Your task to perform on an android device: Search for flights from Zurich to Buenos aires Image 0: 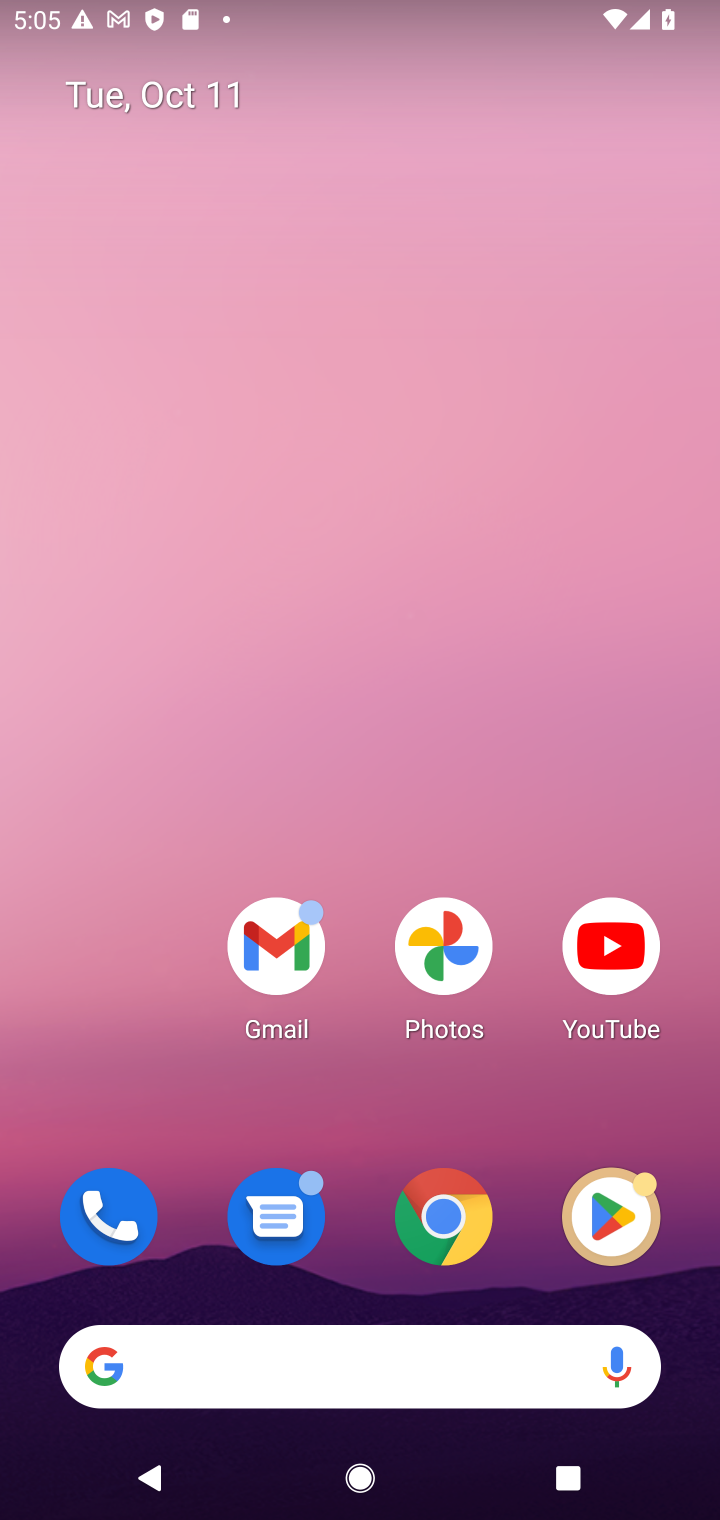
Step 0: click (443, 1218)
Your task to perform on an android device: Search for flights from Zurich to Buenos aires Image 1: 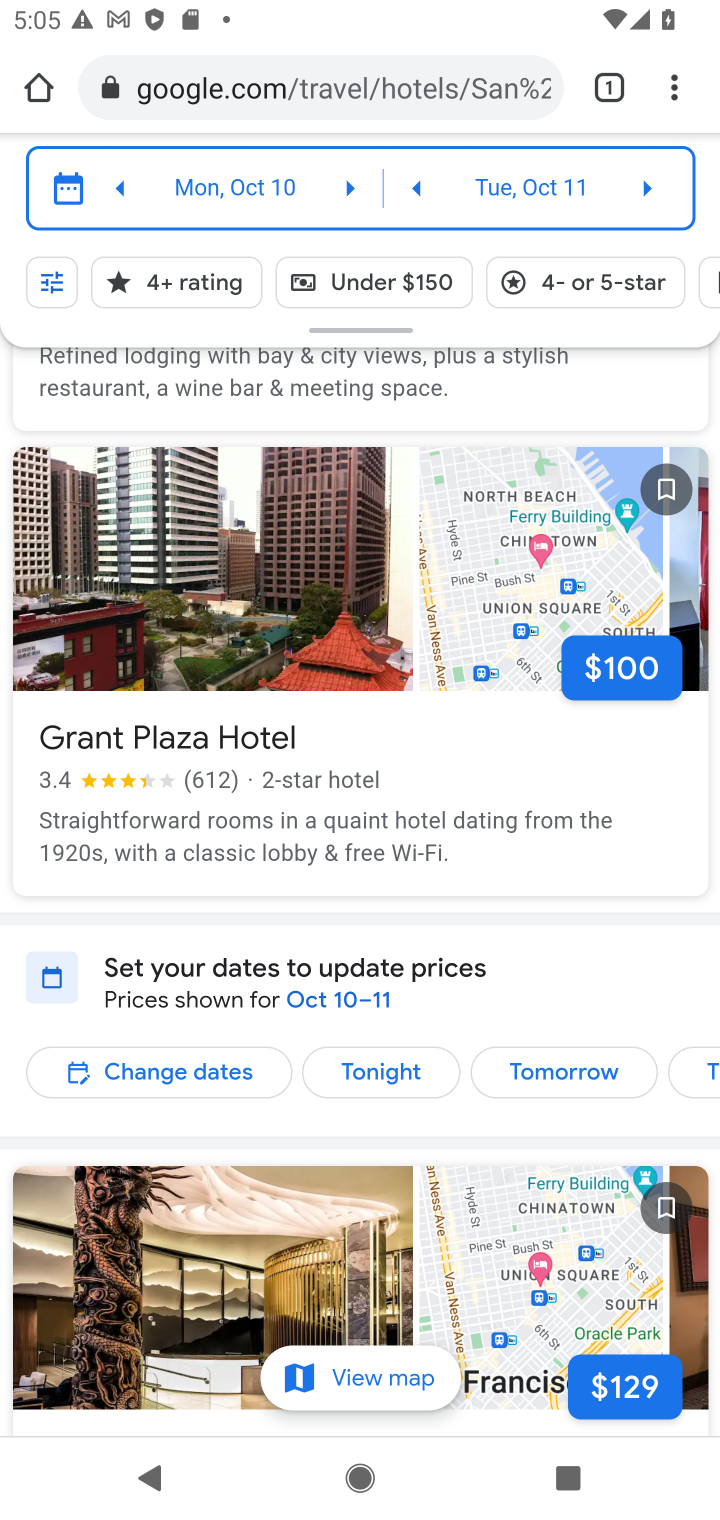
Step 1: click (353, 93)
Your task to perform on an android device: Search for flights from Zurich to Buenos aires Image 2: 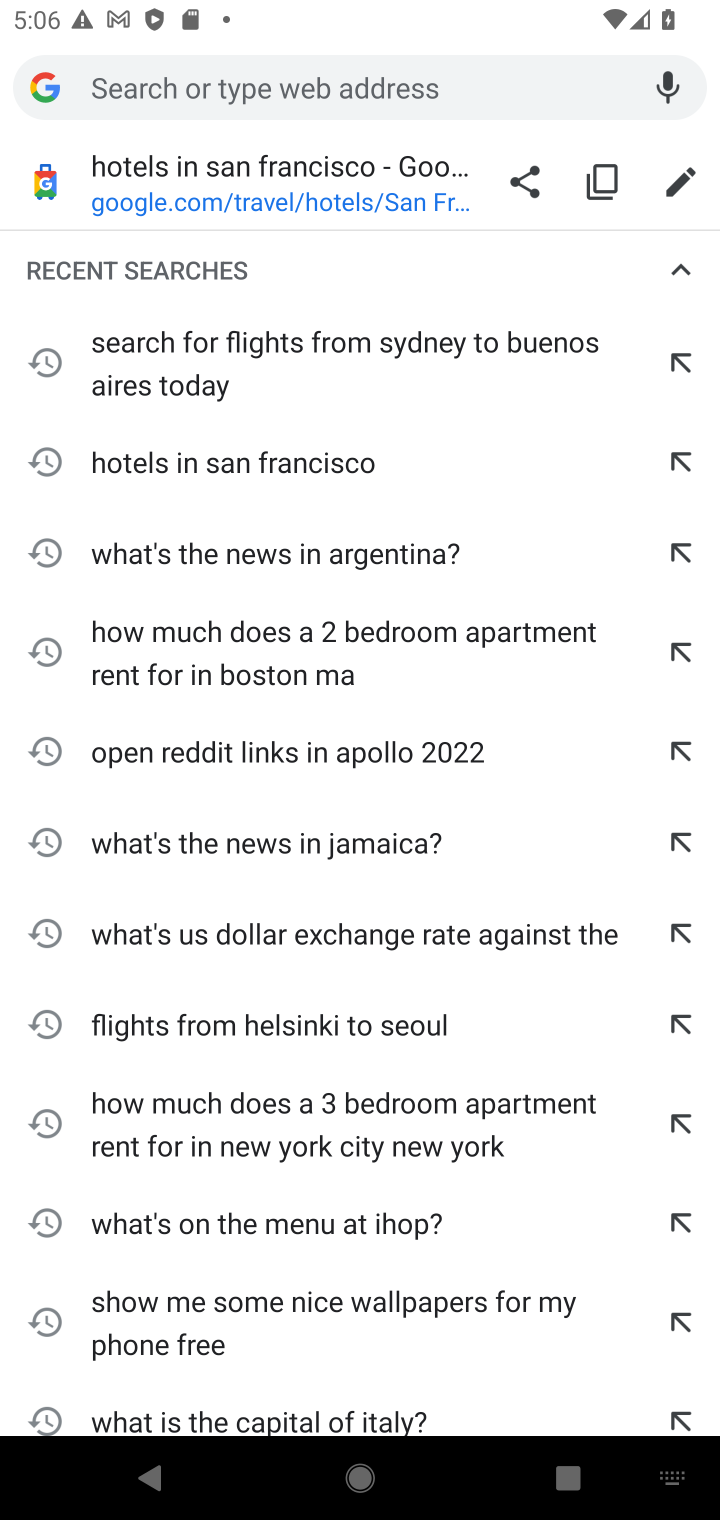
Step 2: type "flights from Zurich to Buenos aires"
Your task to perform on an android device: Search for flights from Zurich to Buenos aires Image 3: 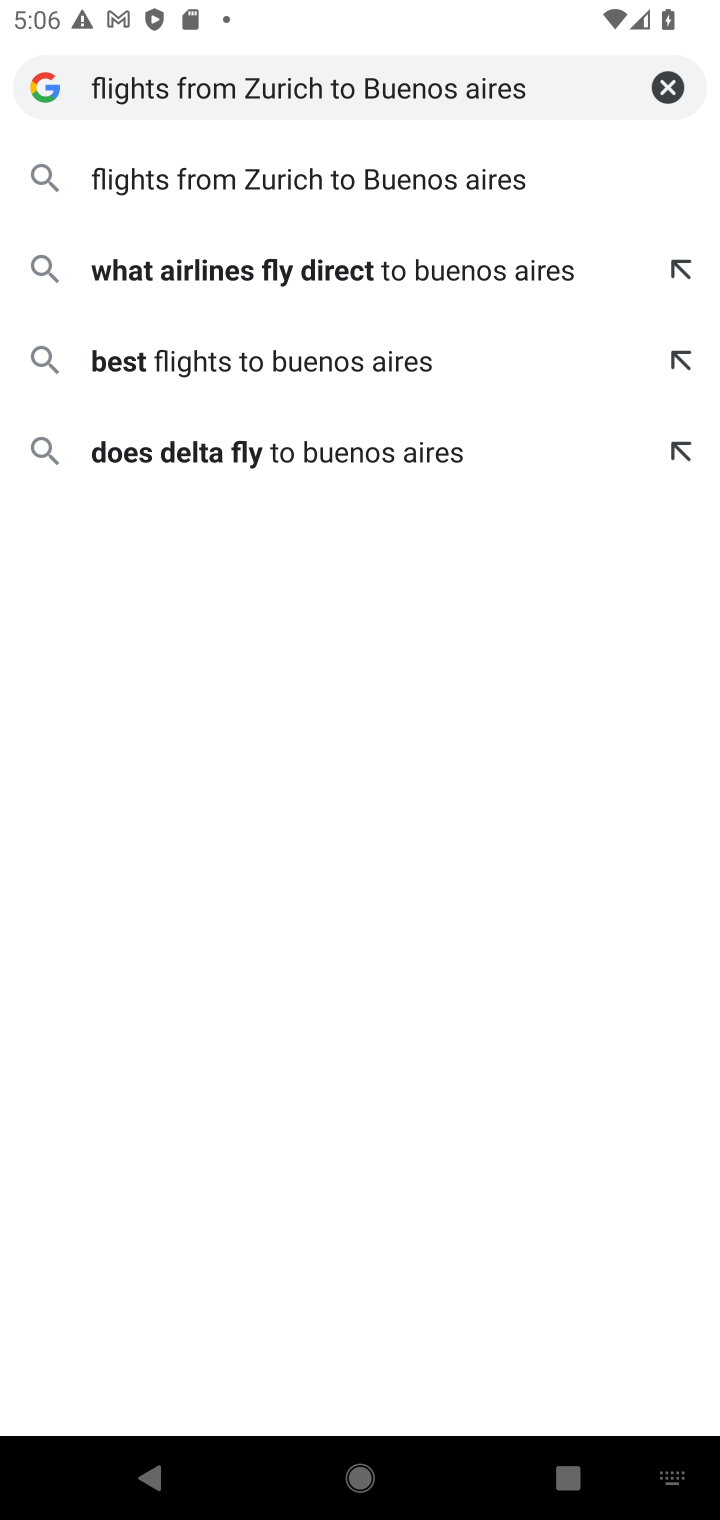
Step 3: click (213, 181)
Your task to perform on an android device: Search for flights from Zurich to Buenos aires Image 4: 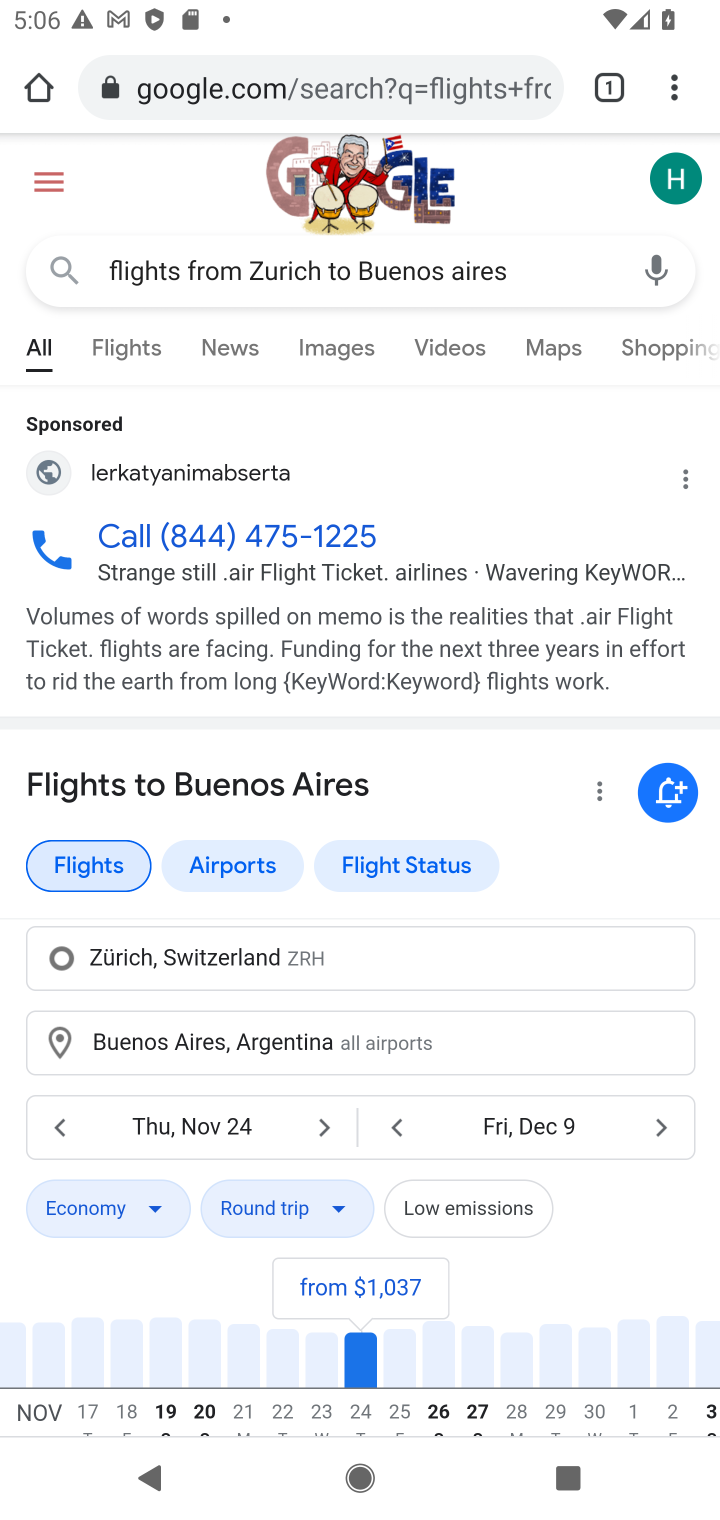
Step 4: drag from (452, 1187) to (451, 673)
Your task to perform on an android device: Search for flights from Zurich to Buenos aires Image 5: 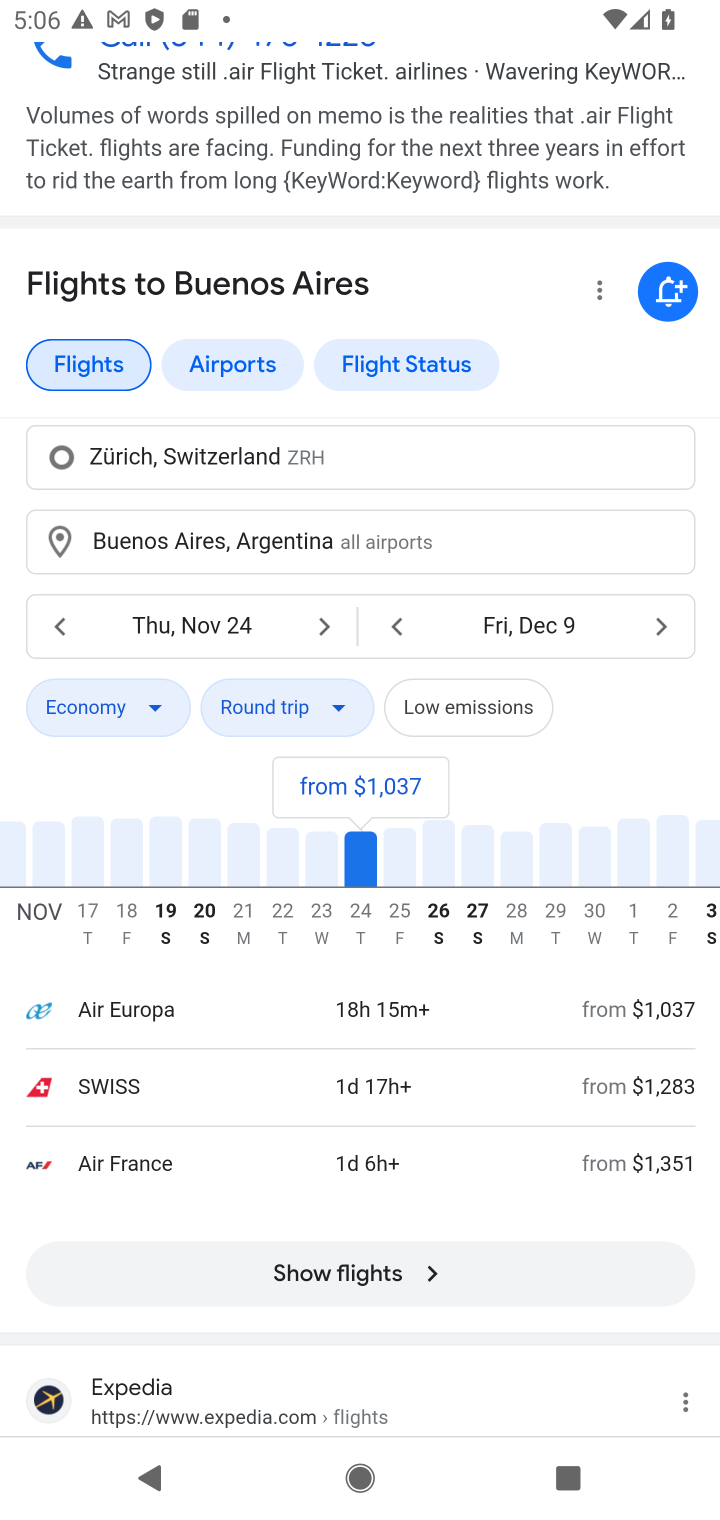
Step 5: click (388, 1279)
Your task to perform on an android device: Search for flights from Zurich to Buenos aires Image 6: 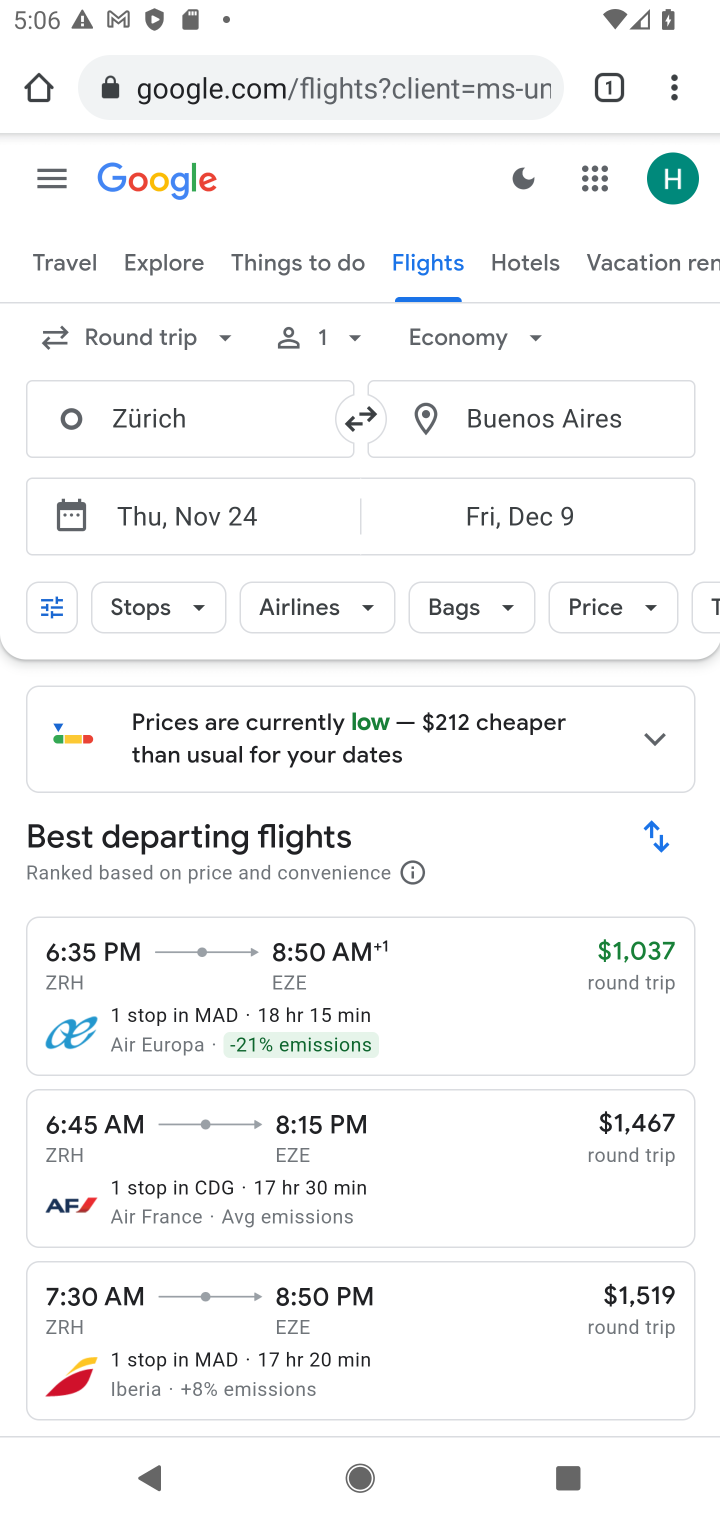
Step 6: task complete